Your task to perform on an android device: Do I have any events tomorrow? Image 0: 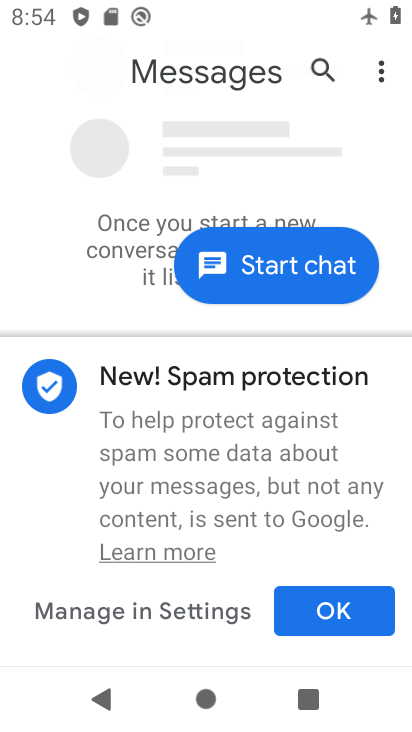
Step 0: press home button
Your task to perform on an android device: Do I have any events tomorrow? Image 1: 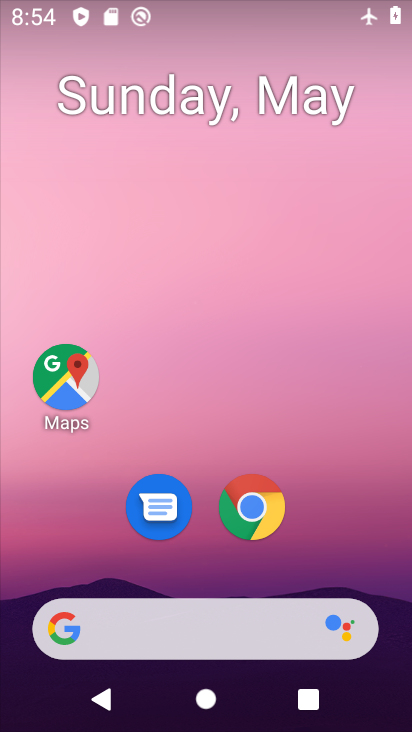
Step 1: drag from (202, 570) to (268, 0)
Your task to perform on an android device: Do I have any events tomorrow? Image 2: 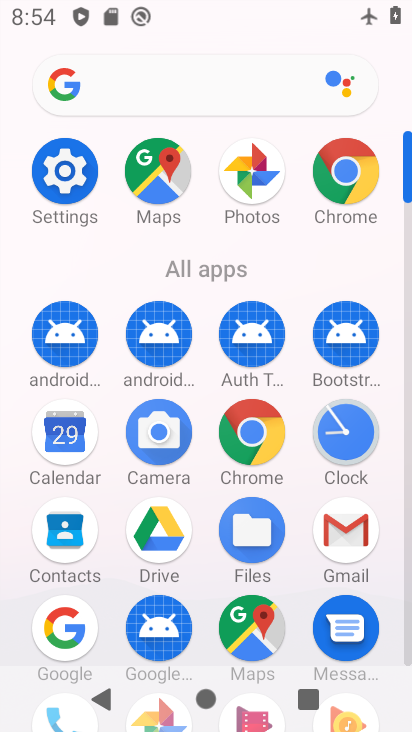
Step 2: click (66, 429)
Your task to perform on an android device: Do I have any events tomorrow? Image 3: 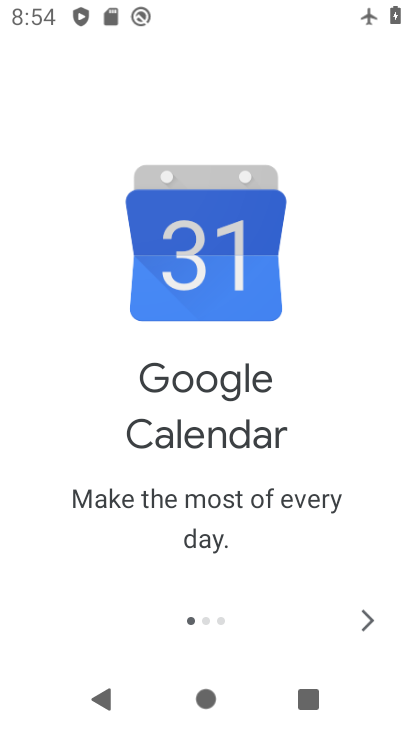
Step 3: click (366, 628)
Your task to perform on an android device: Do I have any events tomorrow? Image 4: 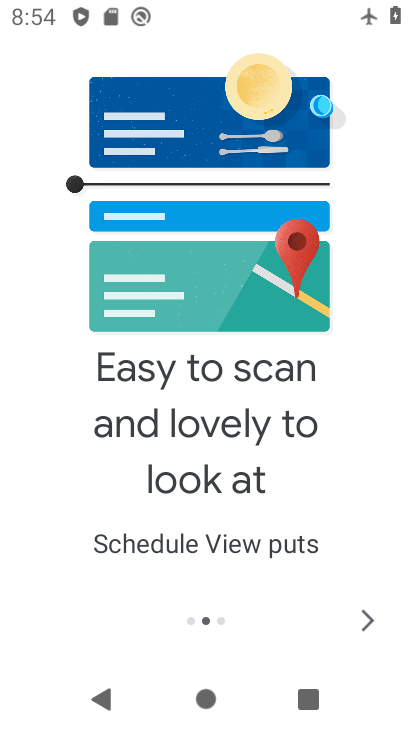
Step 4: click (366, 628)
Your task to perform on an android device: Do I have any events tomorrow? Image 5: 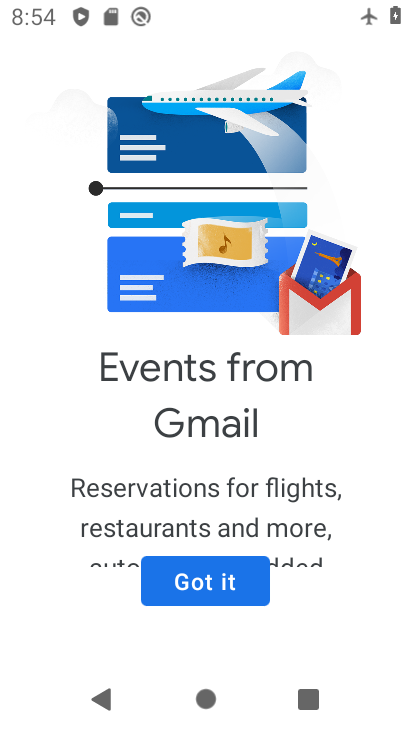
Step 5: click (217, 570)
Your task to perform on an android device: Do I have any events tomorrow? Image 6: 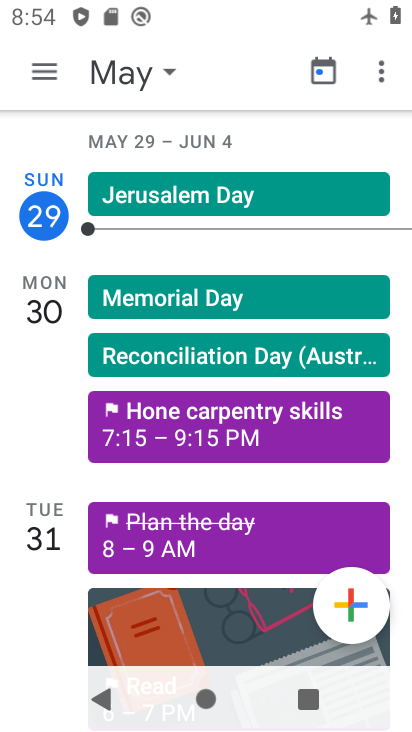
Step 6: click (42, 83)
Your task to perform on an android device: Do I have any events tomorrow? Image 7: 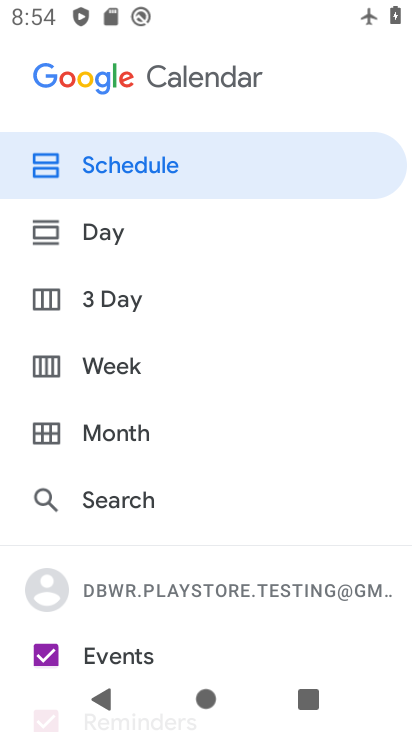
Step 7: drag from (93, 599) to (124, 327)
Your task to perform on an android device: Do I have any events tomorrow? Image 8: 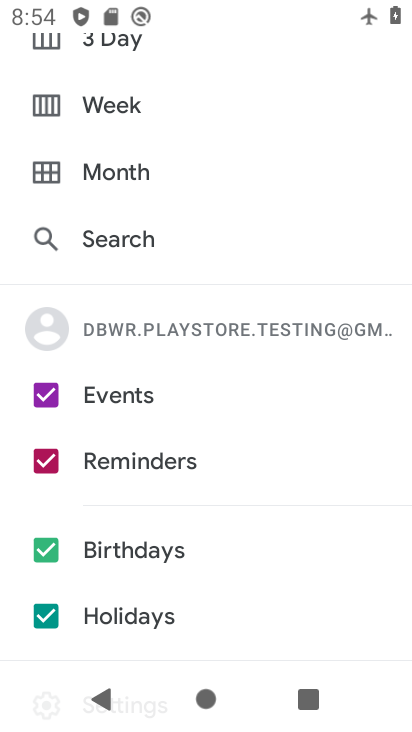
Step 8: click (56, 470)
Your task to perform on an android device: Do I have any events tomorrow? Image 9: 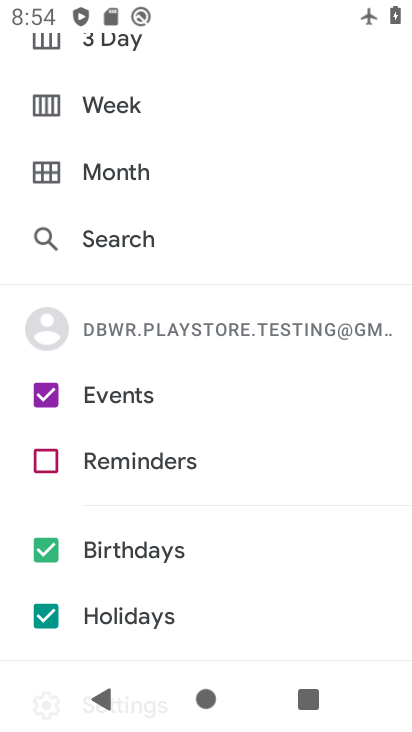
Step 9: click (49, 563)
Your task to perform on an android device: Do I have any events tomorrow? Image 10: 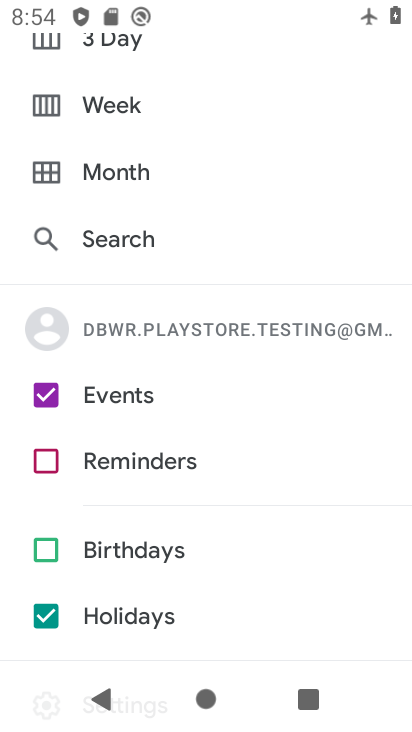
Step 10: click (51, 620)
Your task to perform on an android device: Do I have any events tomorrow? Image 11: 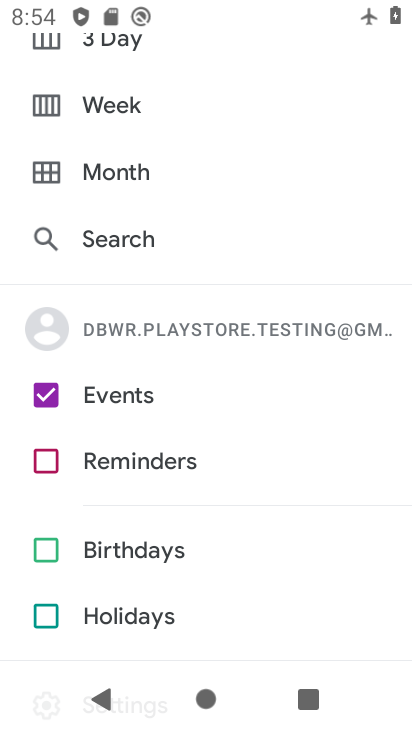
Step 11: click (130, 49)
Your task to perform on an android device: Do I have any events tomorrow? Image 12: 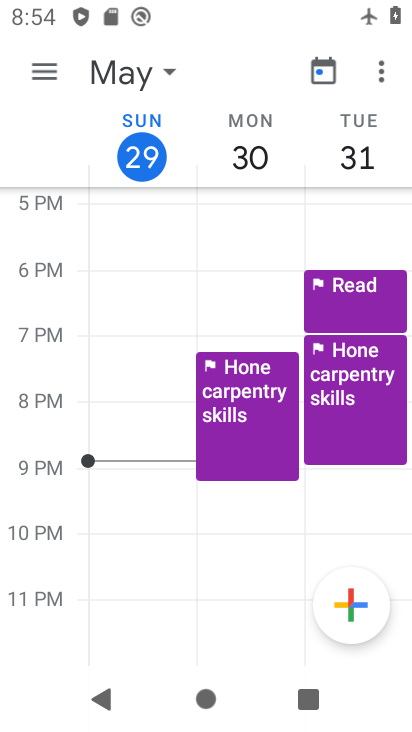
Step 12: task complete